Your task to perform on an android device: Go to calendar. Show me events next week Image 0: 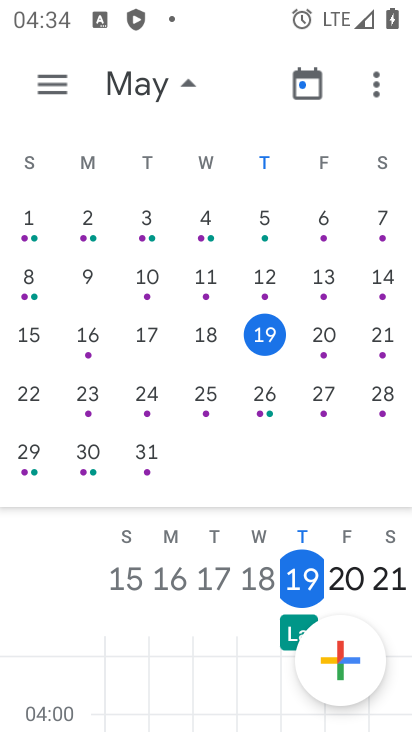
Step 0: press home button
Your task to perform on an android device: Go to calendar. Show me events next week Image 1: 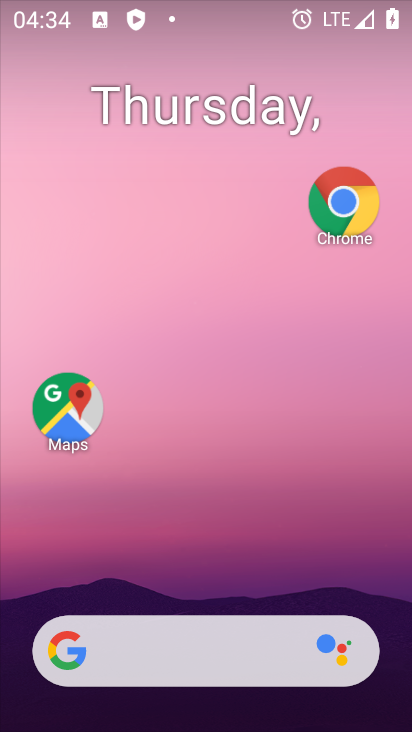
Step 1: drag from (219, 629) to (214, 15)
Your task to perform on an android device: Go to calendar. Show me events next week Image 2: 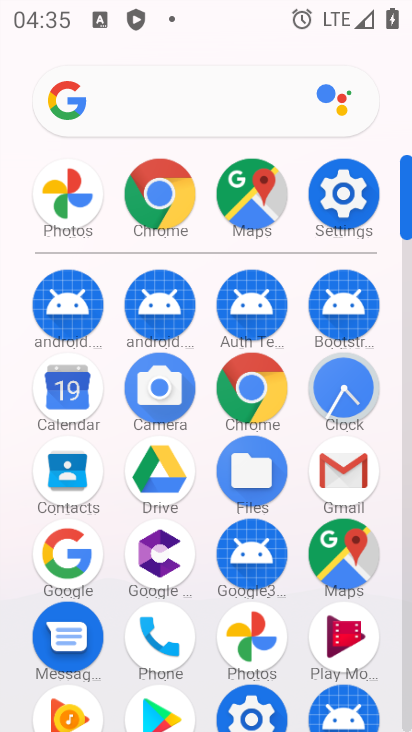
Step 2: click (78, 395)
Your task to perform on an android device: Go to calendar. Show me events next week Image 3: 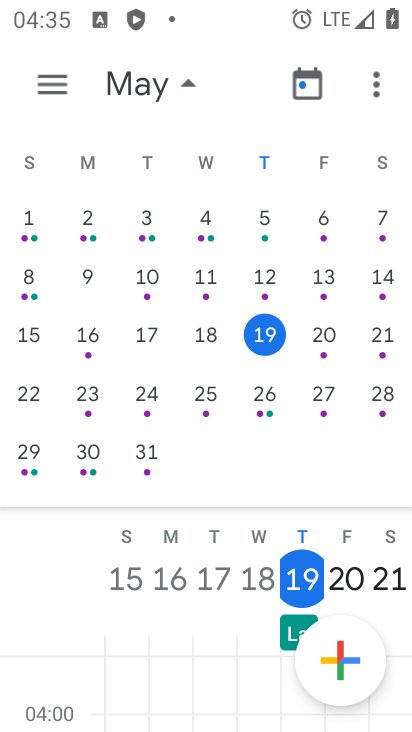
Step 3: drag from (392, 304) to (20, 309)
Your task to perform on an android device: Go to calendar. Show me events next week Image 4: 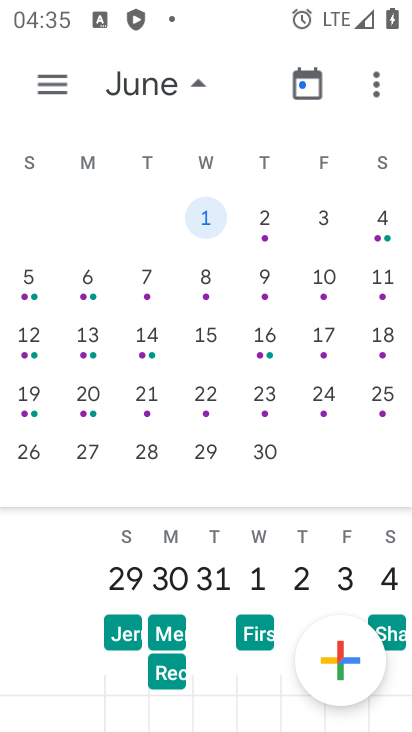
Step 4: drag from (52, 302) to (382, 340)
Your task to perform on an android device: Go to calendar. Show me events next week Image 5: 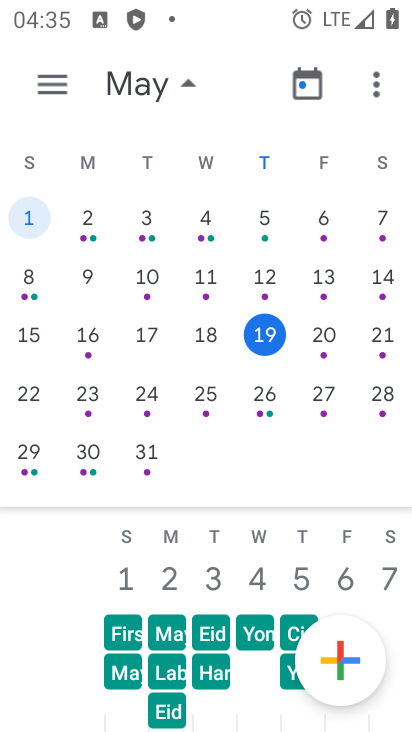
Step 5: click (210, 393)
Your task to perform on an android device: Go to calendar. Show me events next week Image 6: 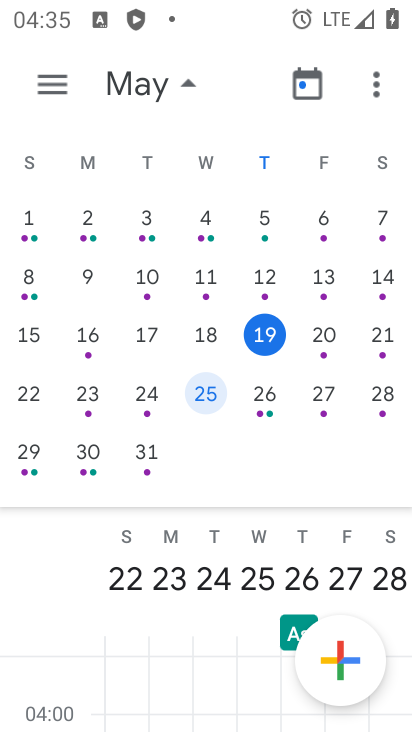
Step 6: click (65, 88)
Your task to perform on an android device: Go to calendar. Show me events next week Image 7: 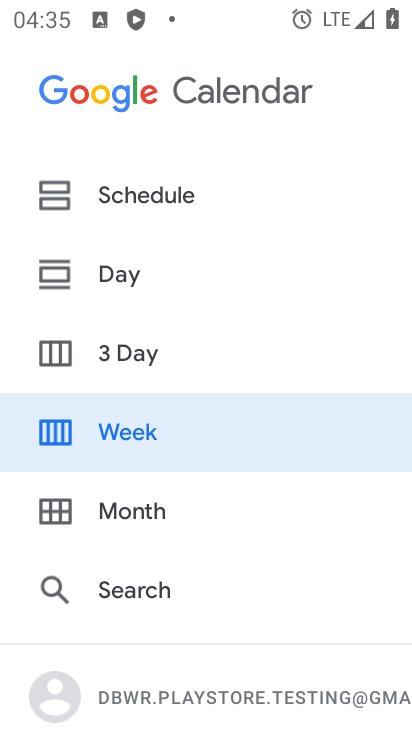
Step 7: click (161, 440)
Your task to perform on an android device: Go to calendar. Show me events next week Image 8: 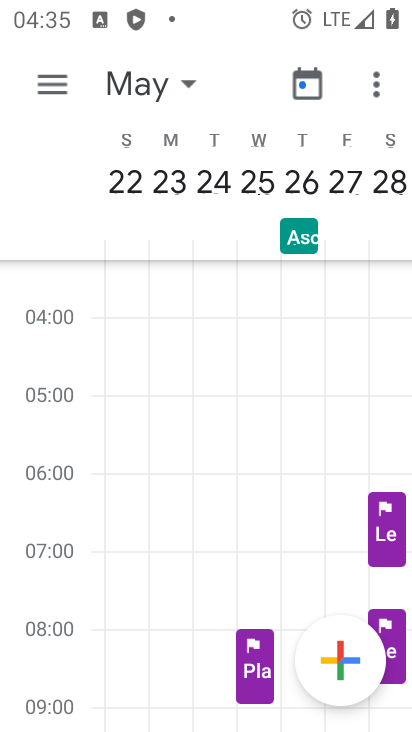
Step 8: task complete